Your task to perform on an android device: turn notification dots off Image 0: 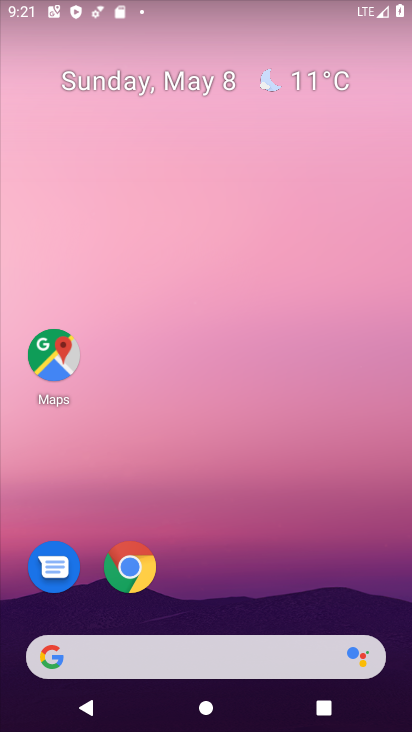
Step 0: drag from (252, 496) to (342, 54)
Your task to perform on an android device: turn notification dots off Image 1: 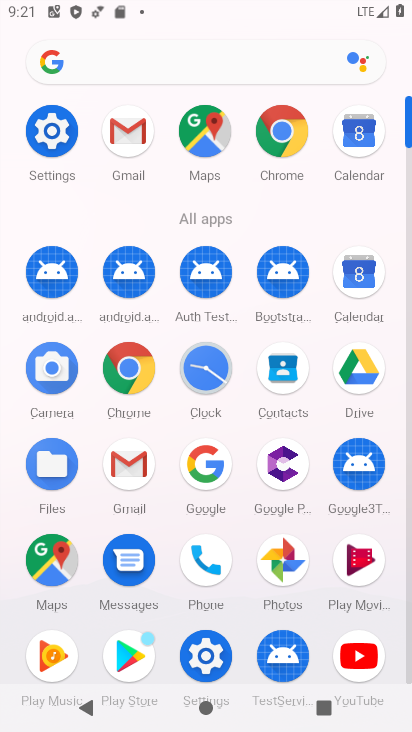
Step 1: click (58, 122)
Your task to perform on an android device: turn notification dots off Image 2: 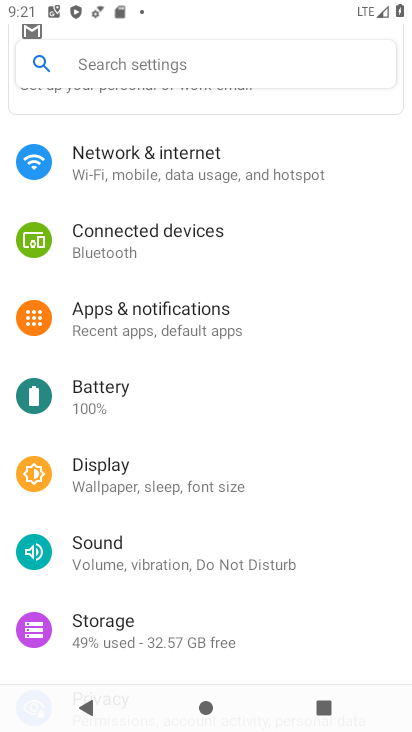
Step 2: drag from (339, 202) to (234, 592)
Your task to perform on an android device: turn notification dots off Image 3: 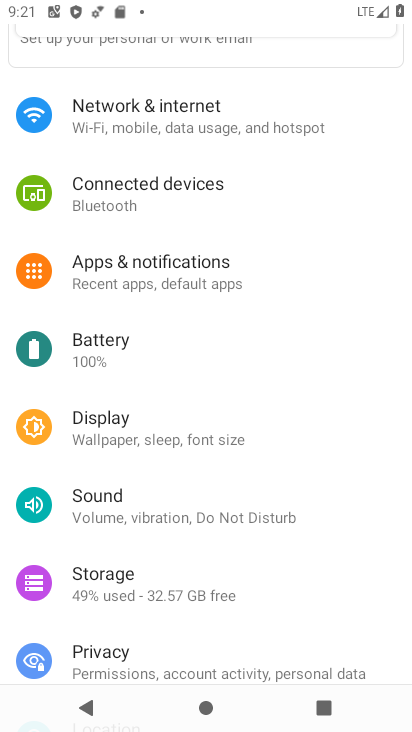
Step 3: click (131, 276)
Your task to perform on an android device: turn notification dots off Image 4: 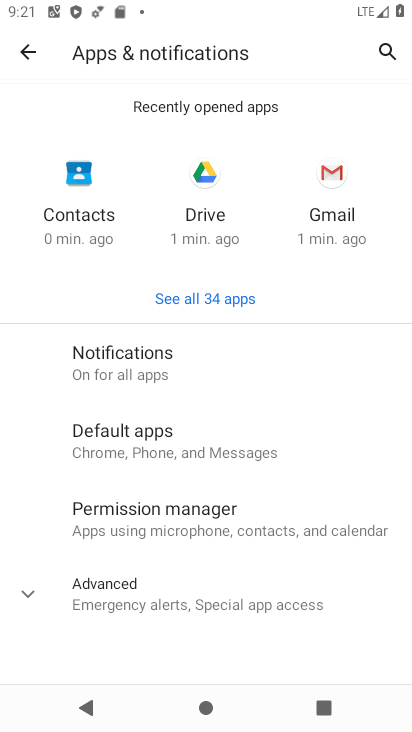
Step 4: click (161, 358)
Your task to perform on an android device: turn notification dots off Image 5: 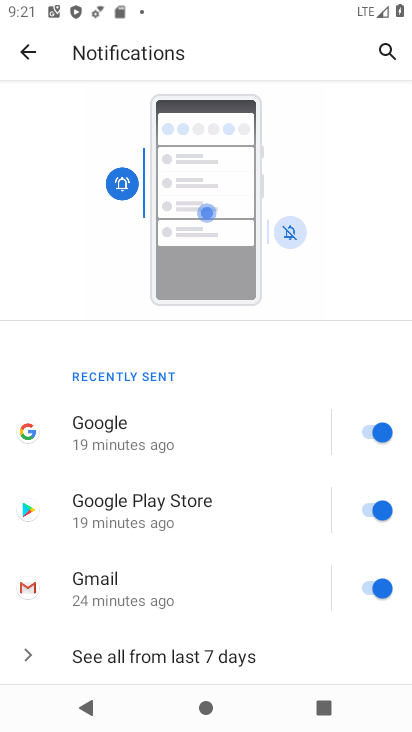
Step 5: drag from (169, 611) to (314, 116)
Your task to perform on an android device: turn notification dots off Image 6: 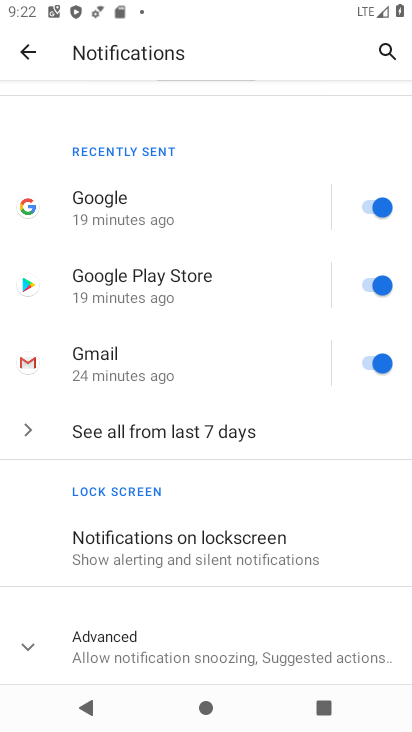
Step 6: drag from (180, 649) to (271, 124)
Your task to perform on an android device: turn notification dots off Image 7: 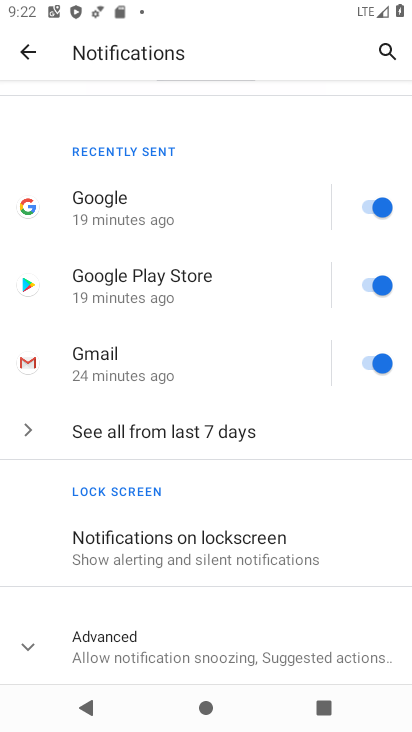
Step 7: click (97, 650)
Your task to perform on an android device: turn notification dots off Image 8: 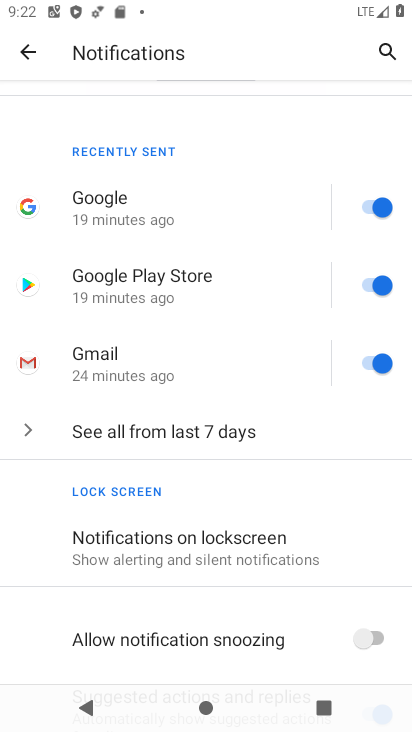
Step 8: drag from (232, 648) to (271, 220)
Your task to perform on an android device: turn notification dots off Image 9: 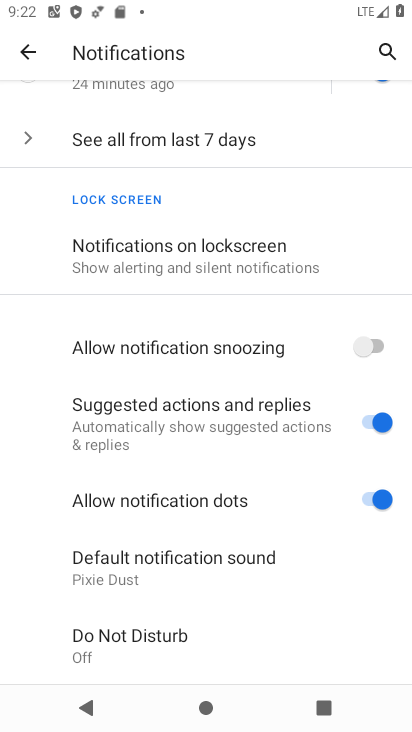
Step 9: click (377, 499)
Your task to perform on an android device: turn notification dots off Image 10: 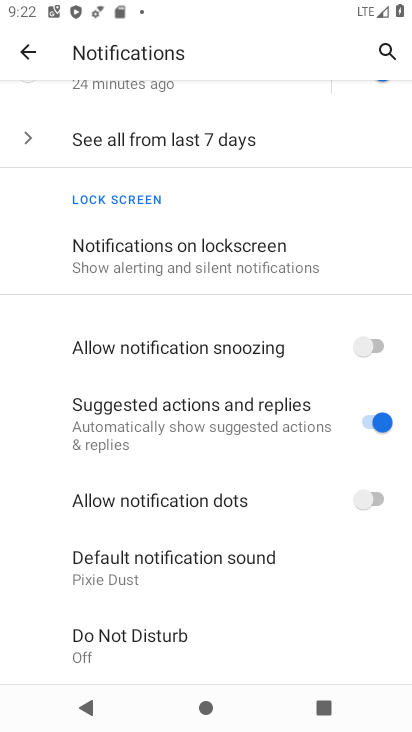
Step 10: task complete